Your task to perform on an android device: What is the recent news? Image 0: 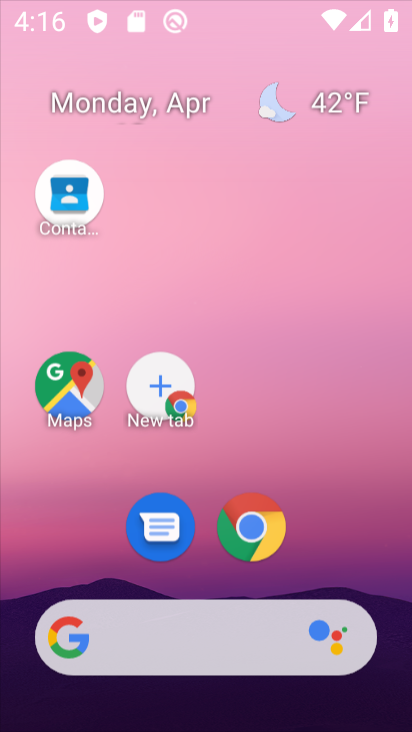
Step 0: click (338, 0)
Your task to perform on an android device: What is the recent news? Image 1: 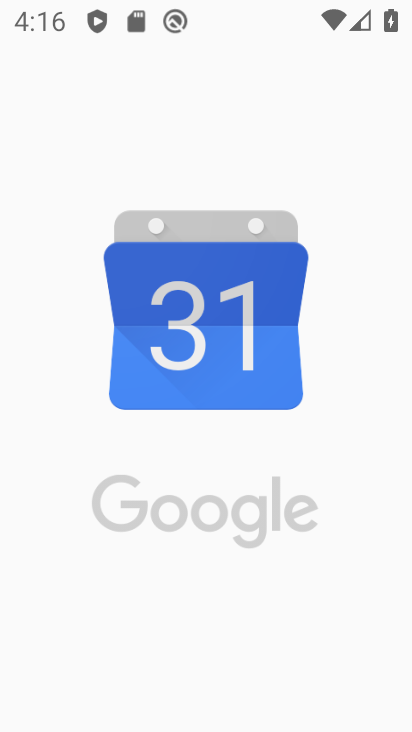
Step 1: drag from (235, 466) to (314, 47)
Your task to perform on an android device: What is the recent news? Image 2: 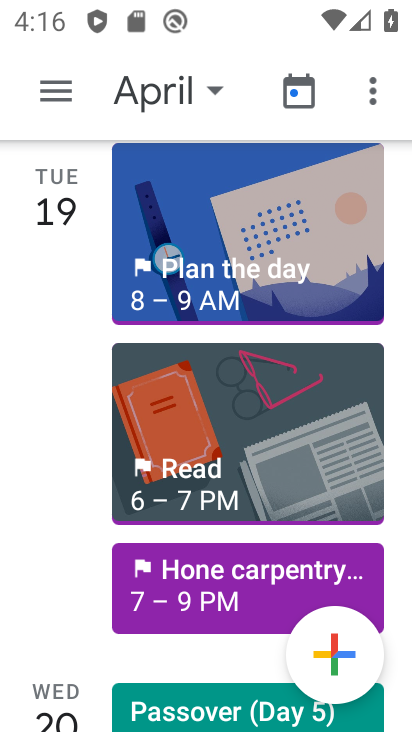
Step 2: press home button
Your task to perform on an android device: What is the recent news? Image 3: 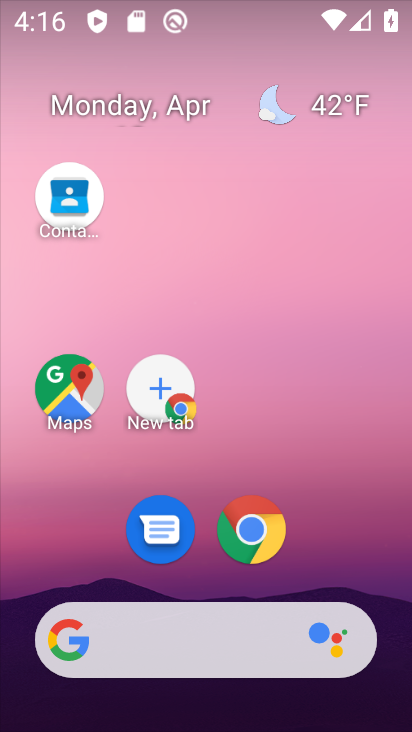
Step 3: click (128, 649)
Your task to perform on an android device: What is the recent news? Image 4: 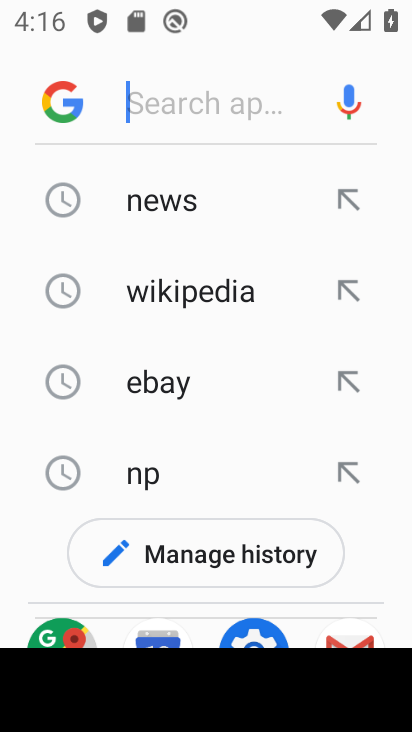
Step 4: drag from (170, 440) to (181, 522)
Your task to perform on an android device: What is the recent news? Image 5: 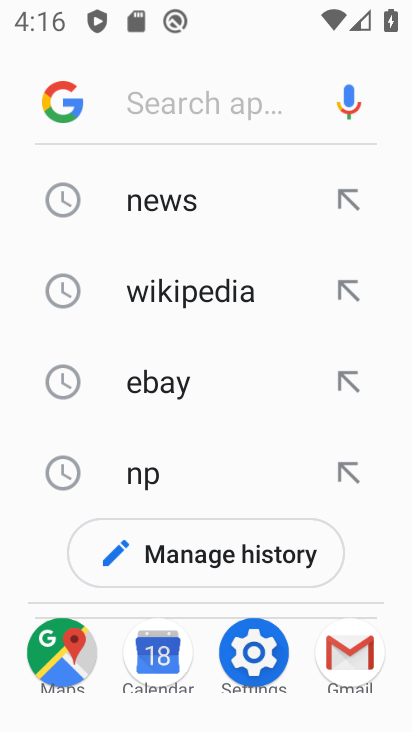
Step 5: click (166, 194)
Your task to perform on an android device: What is the recent news? Image 6: 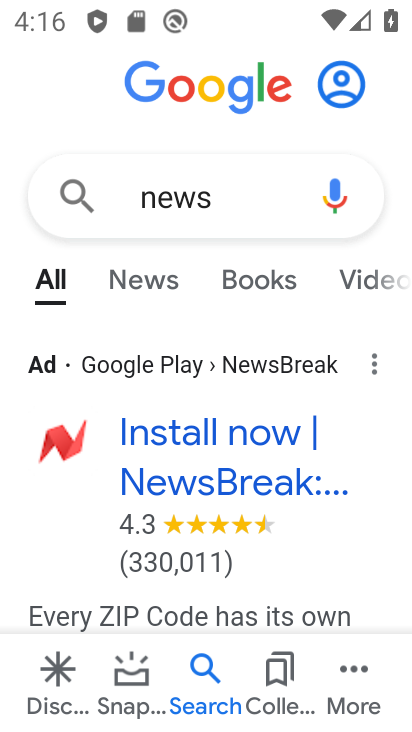
Step 6: click (125, 201)
Your task to perform on an android device: What is the recent news? Image 7: 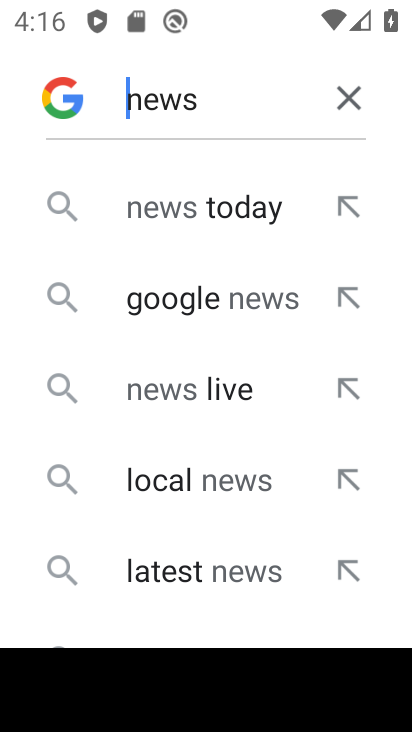
Step 7: type "recent"
Your task to perform on an android device: What is the recent news? Image 8: 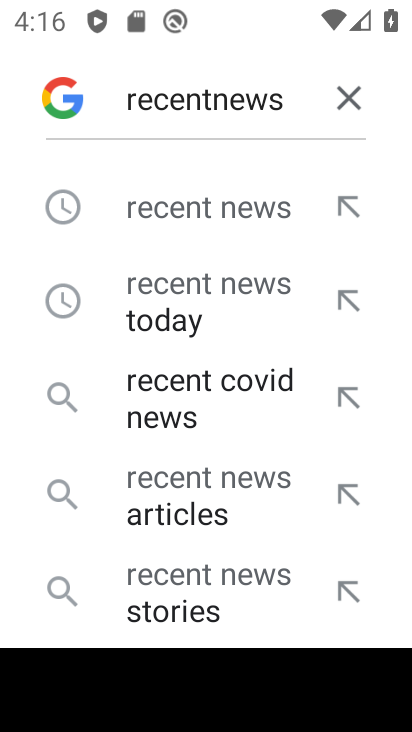
Step 8: click (210, 295)
Your task to perform on an android device: What is the recent news? Image 9: 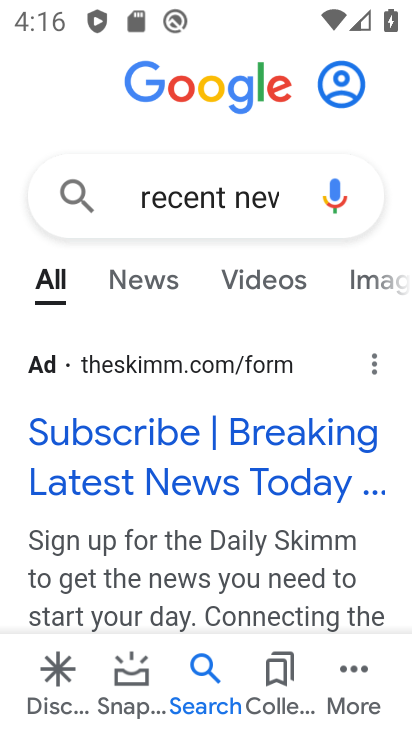
Step 9: task complete